Your task to perform on an android device: Open settings Image 0: 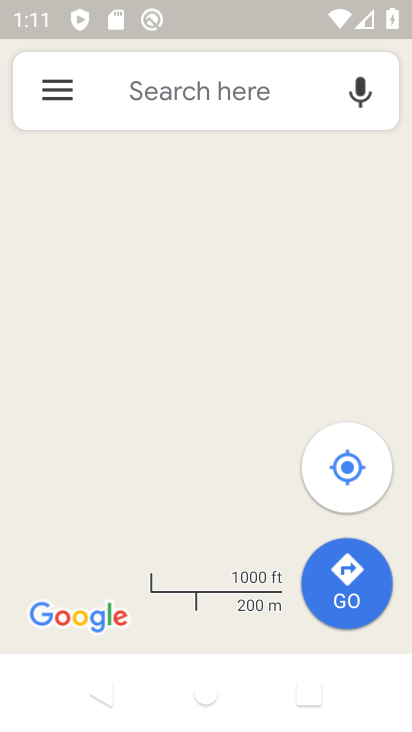
Step 0: press home button
Your task to perform on an android device: Open settings Image 1: 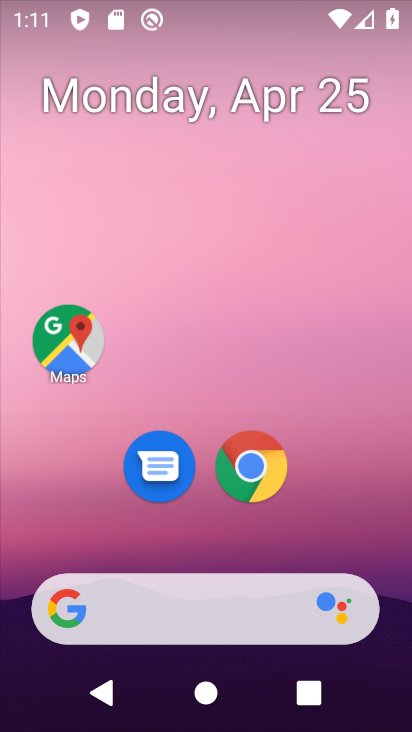
Step 1: drag from (308, 534) to (379, 2)
Your task to perform on an android device: Open settings Image 2: 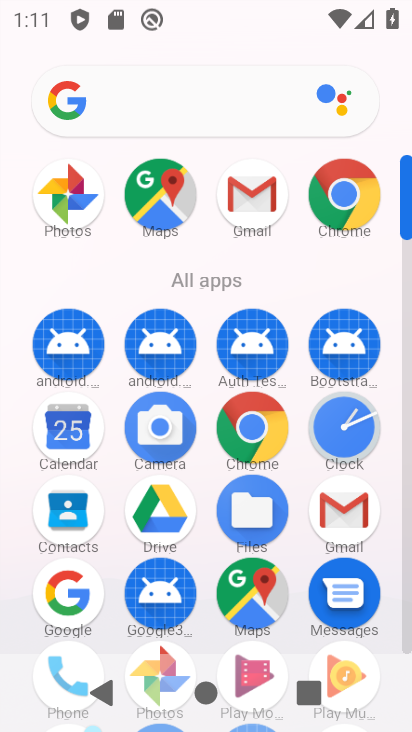
Step 2: drag from (200, 471) to (213, 261)
Your task to perform on an android device: Open settings Image 3: 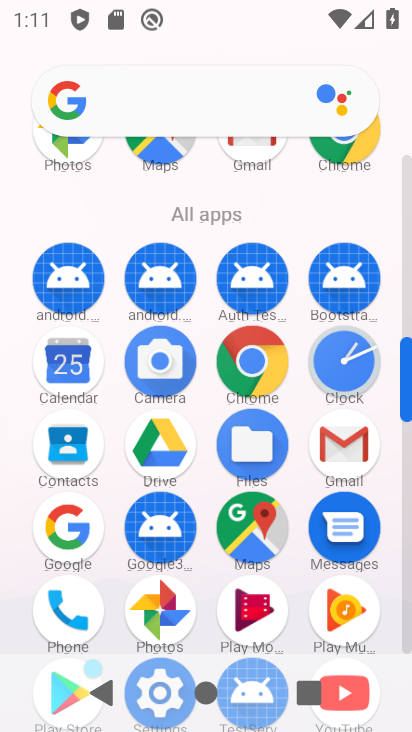
Step 3: drag from (175, 608) to (207, 267)
Your task to perform on an android device: Open settings Image 4: 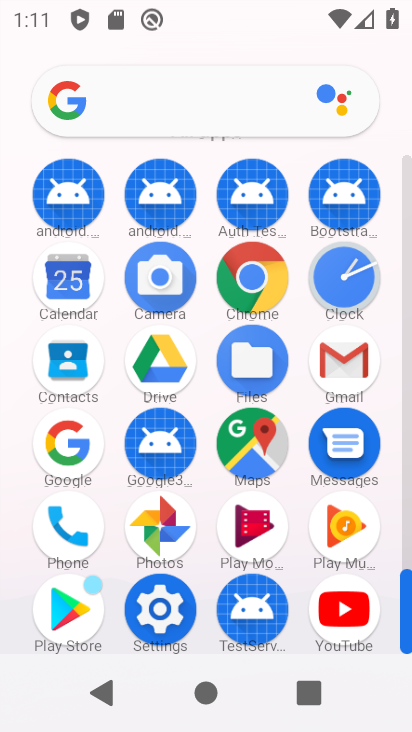
Step 4: click (131, 595)
Your task to perform on an android device: Open settings Image 5: 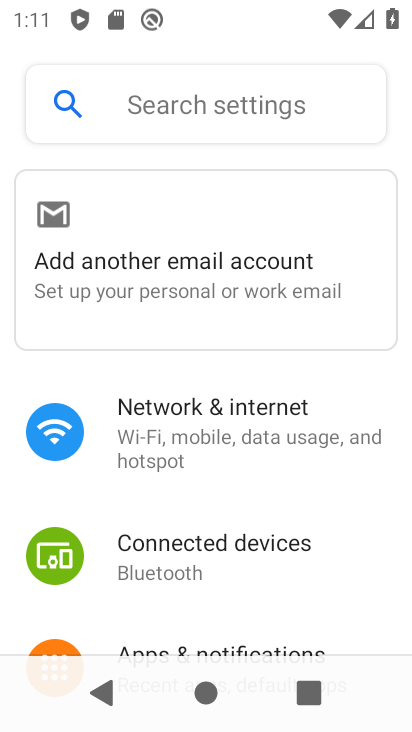
Step 5: task complete